Your task to perform on an android device: Go to notification settings Image 0: 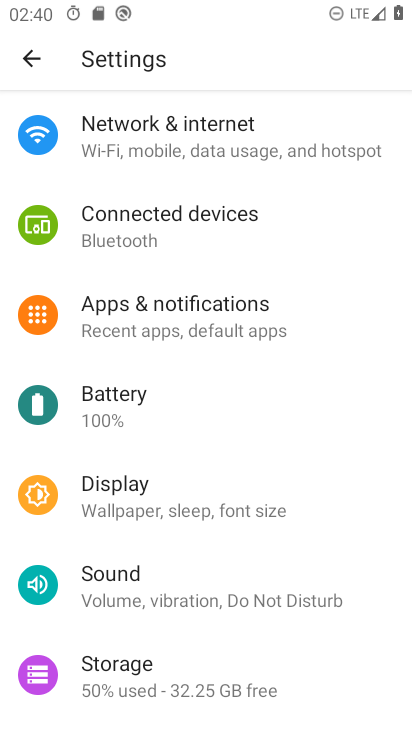
Step 0: click (190, 322)
Your task to perform on an android device: Go to notification settings Image 1: 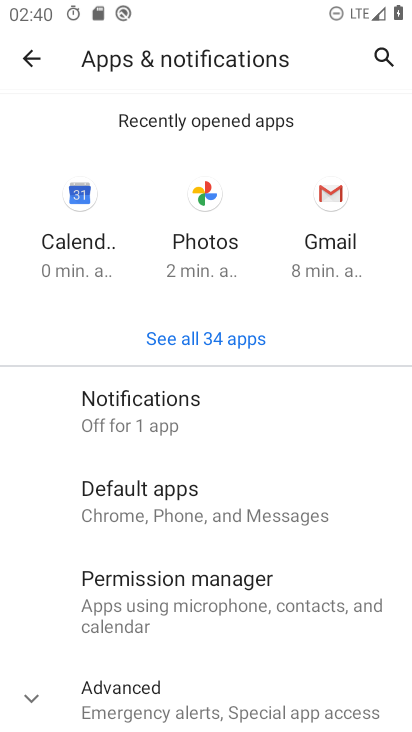
Step 1: click (122, 413)
Your task to perform on an android device: Go to notification settings Image 2: 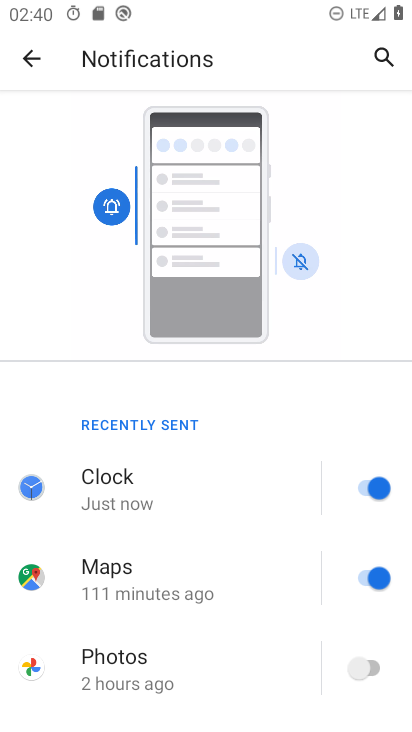
Step 2: task complete